Your task to perform on an android device: turn on translation in the chrome app Image 0: 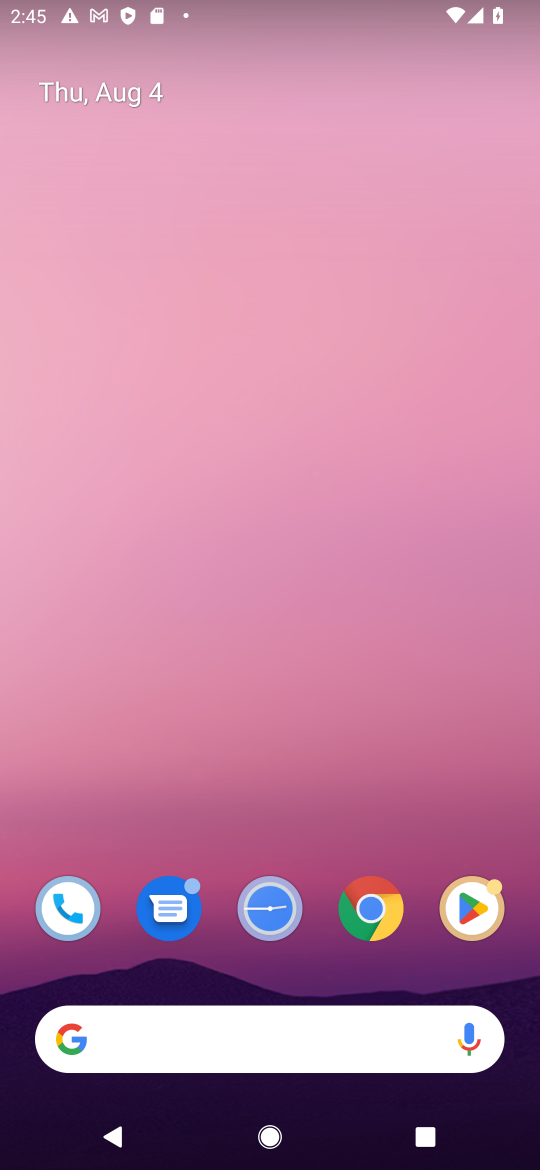
Step 0: drag from (329, 964) to (338, 132)
Your task to perform on an android device: turn on translation in the chrome app Image 1: 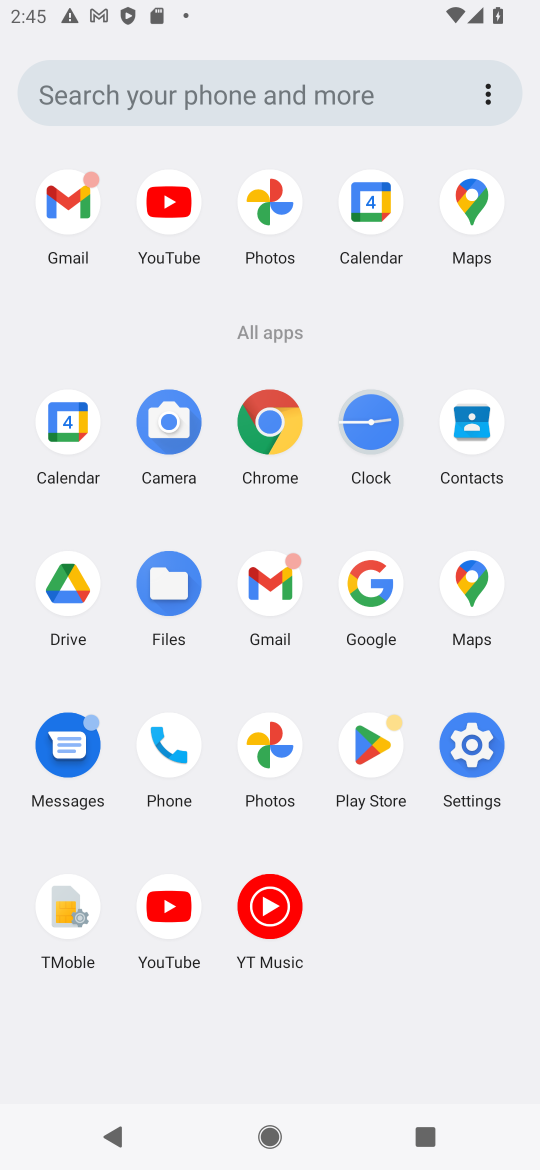
Step 1: click (266, 451)
Your task to perform on an android device: turn on translation in the chrome app Image 2: 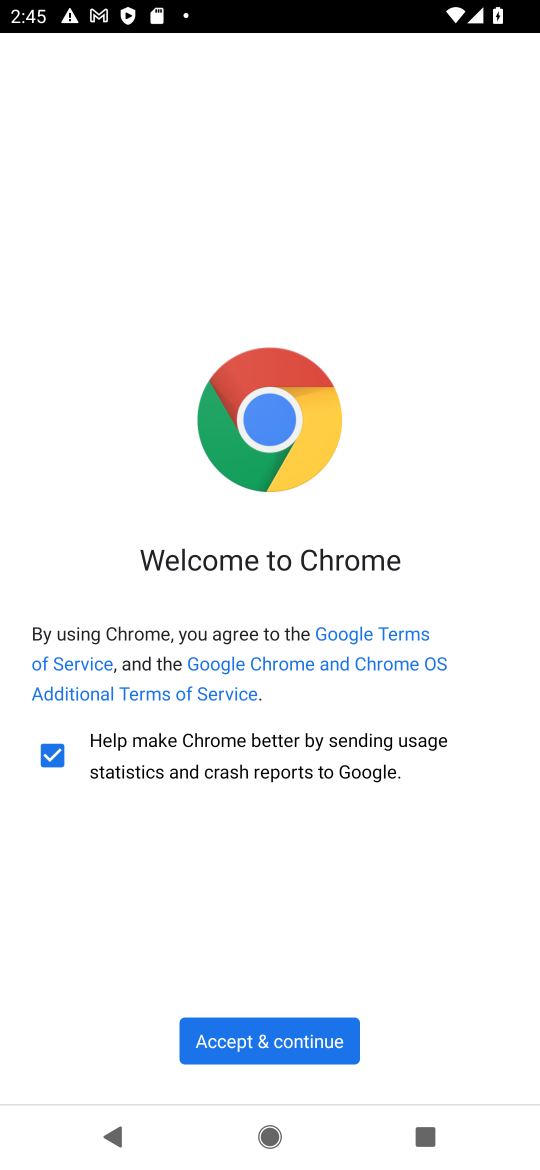
Step 2: click (269, 1023)
Your task to perform on an android device: turn on translation in the chrome app Image 3: 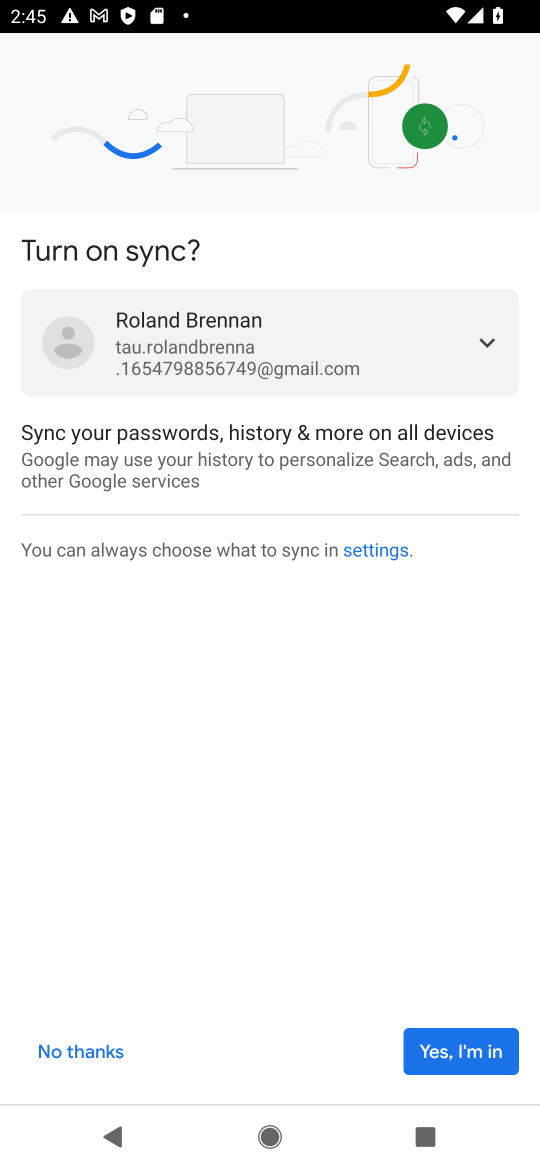
Step 3: click (79, 1056)
Your task to perform on an android device: turn on translation in the chrome app Image 4: 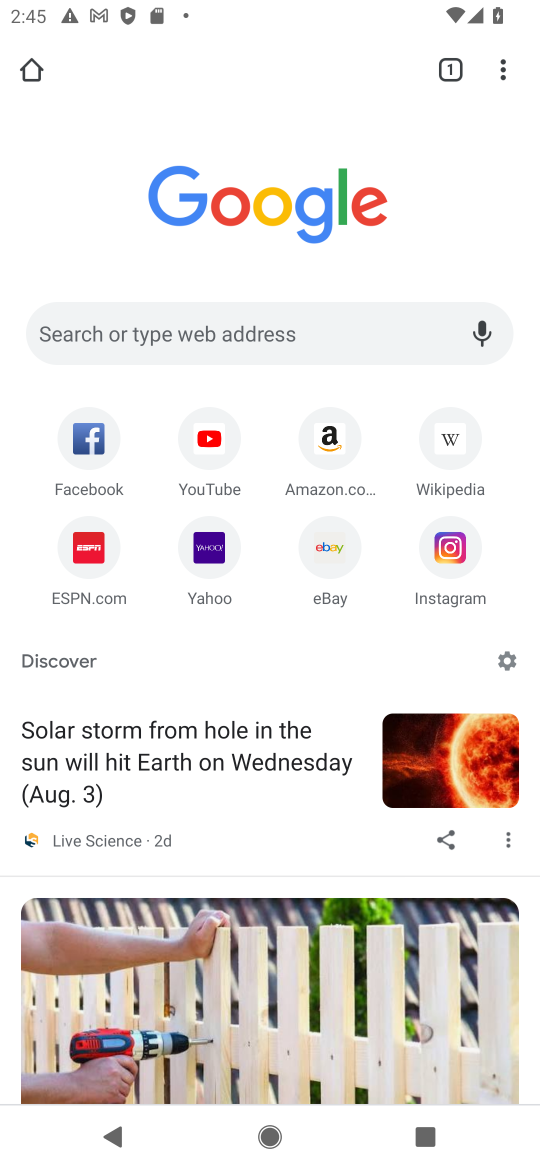
Step 4: drag from (493, 75) to (293, 640)
Your task to perform on an android device: turn on translation in the chrome app Image 5: 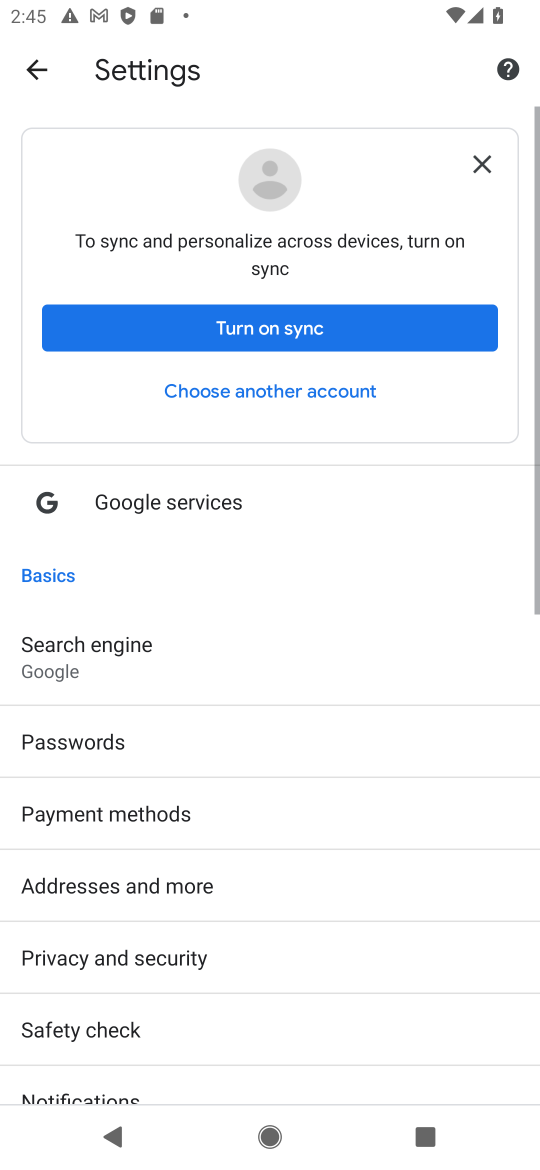
Step 5: drag from (207, 938) to (232, 230)
Your task to perform on an android device: turn on translation in the chrome app Image 6: 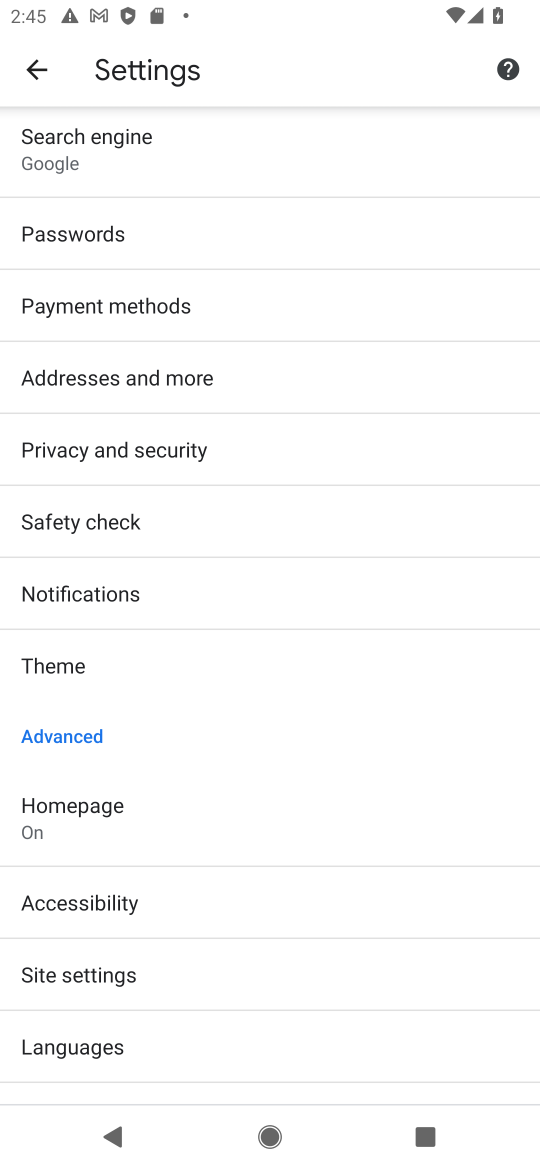
Step 6: drag from (233, 884) to (270, 252)
Your task to perform on an android device: turn on translation in the chrome app Image 7: 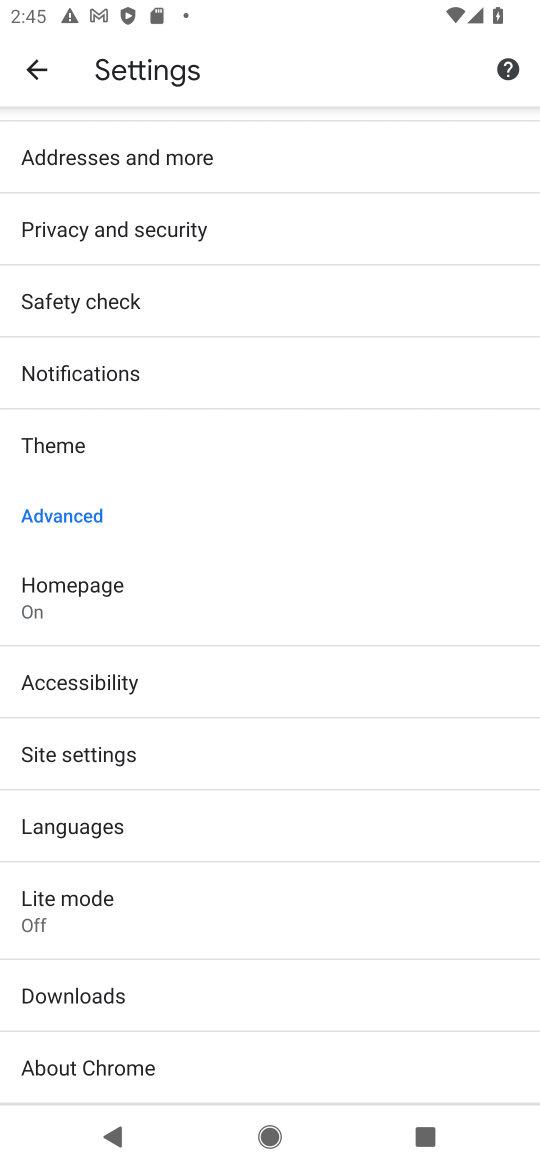
Step 7: click (110, 814)
Your task to perform on an android device: turn on translation in the chrome app Image 8: 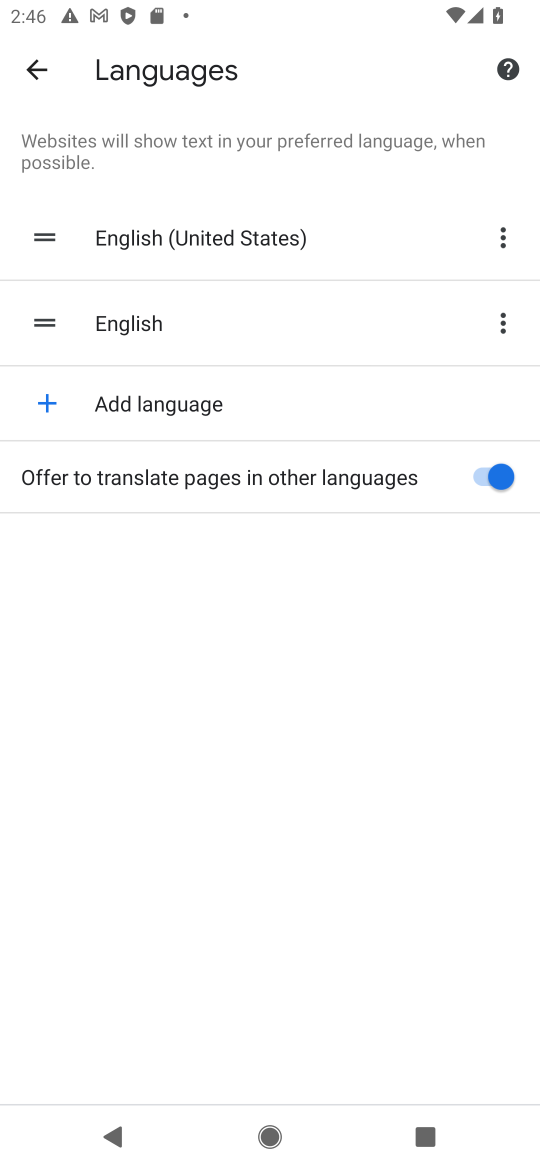
Step 8: task complete